Your task to perform on an android device: When is my next meeting? Image 0: 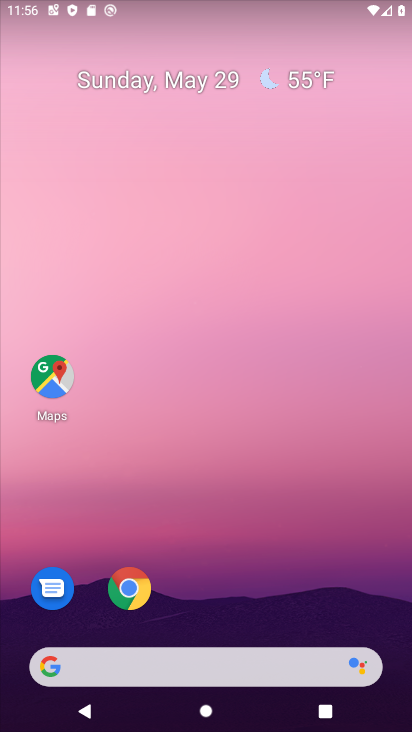
Step 0: drag from (327, 484) to (372, 2)
Your task to perform on an android device: When is my next meeting? Image 1: 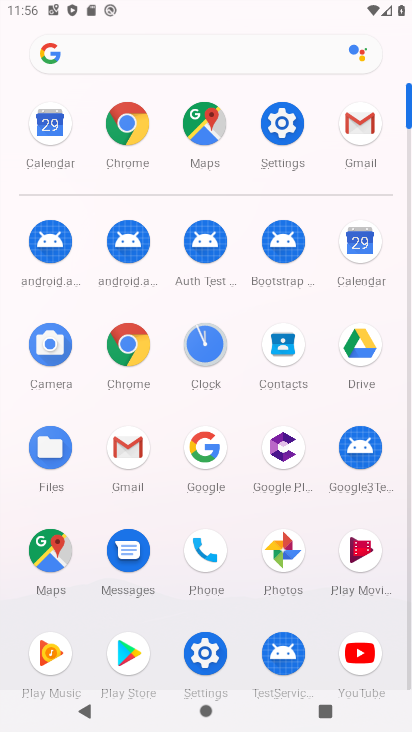
Step 1: click (49, 145)
Your task to perform on an android device: When is my next meeting? Image 2: 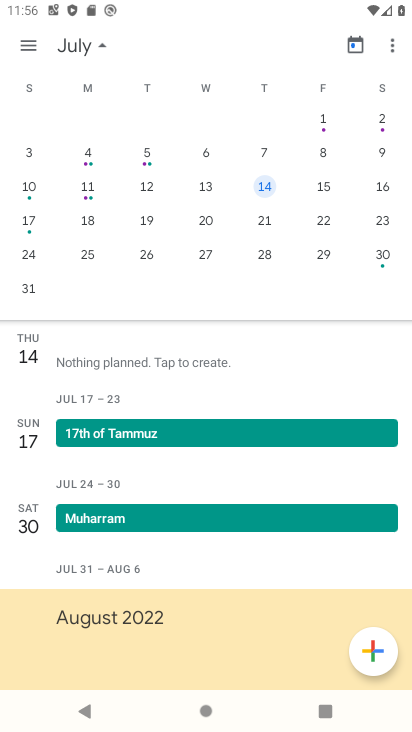
Step 2: click (28, 224)
Your task to perform on an android device: When is my next meeting? Image 3: 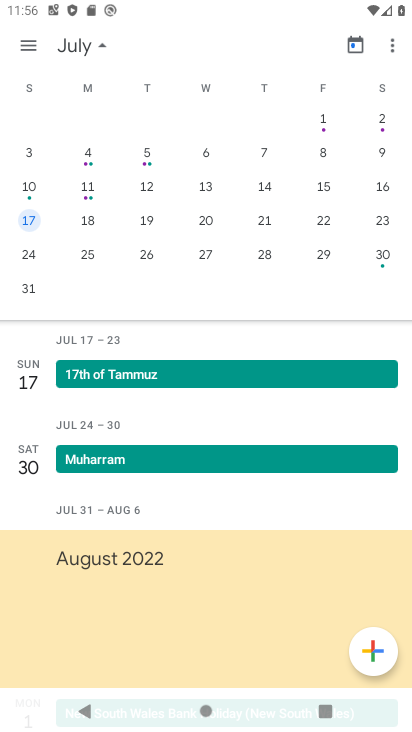
Step 3: task complete